Your task to perform on an android device: Open Maps and search for coffee Image 0: 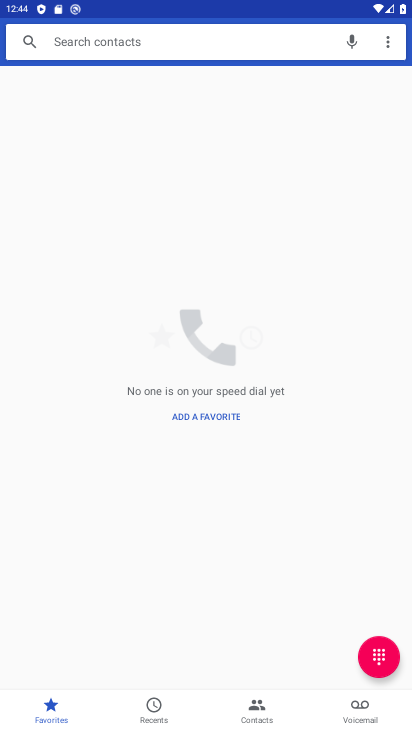
Step 0: press home button
Your task to perform on an android device: Open Maps and search for coffee Image 1: 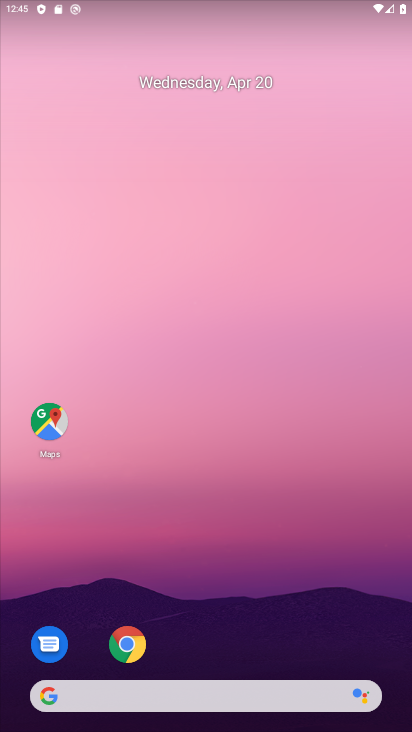
Step 1: click (40, 427)
Your task to perform on an android device: Open Maps and search for coffee Image 2: 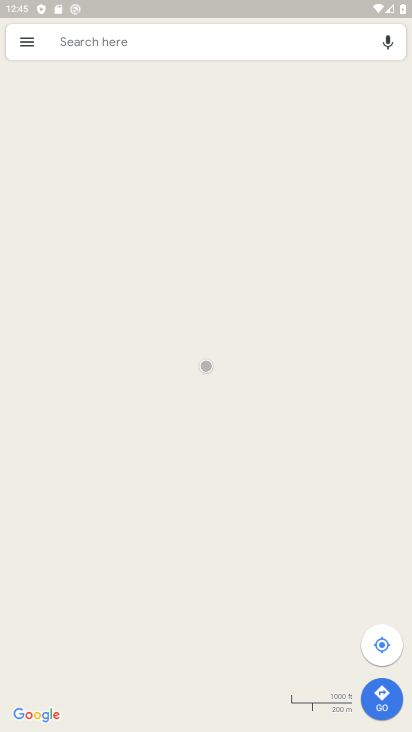
Step 2: click (121, 42)
Your task to perform on an android device: Open Maps and search for coffee Image 3: 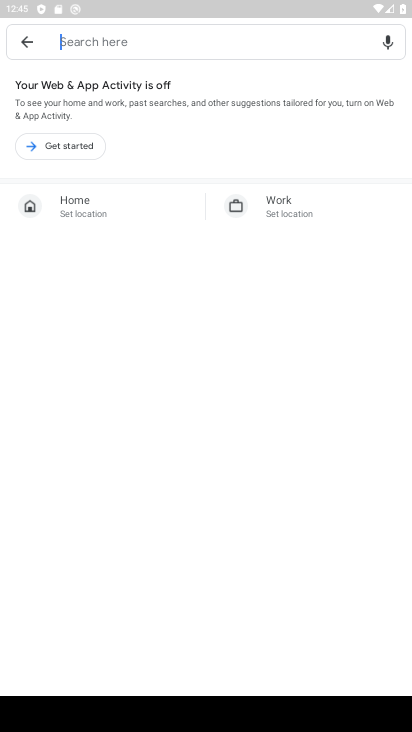
Step 3: type "coffee"
Your task to perform on an android device: Open Maps and search for coffee Image 4: 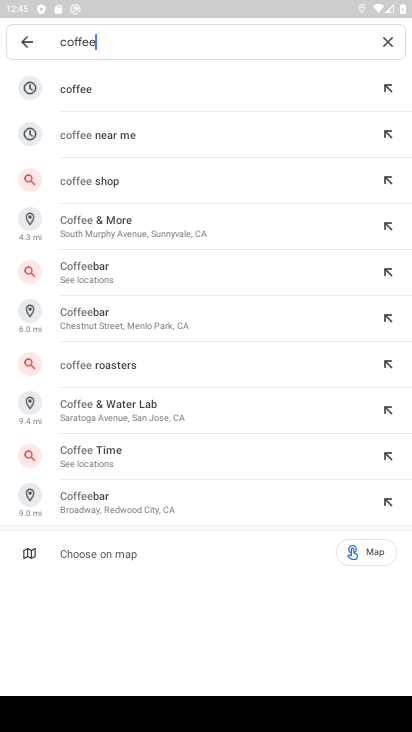
Step 4: click (111, 95)
Your task to perform on an android device: Open Maps and search for coffee Image 5: 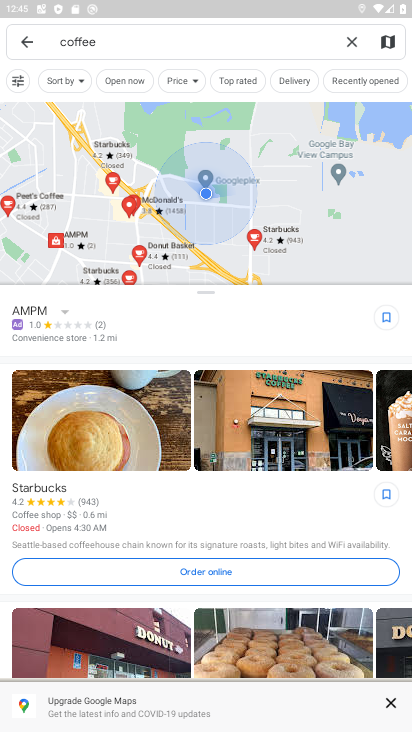
Step 5: task complete